Your task to perform on an android device: Open Chrome and go to settings Image 0: 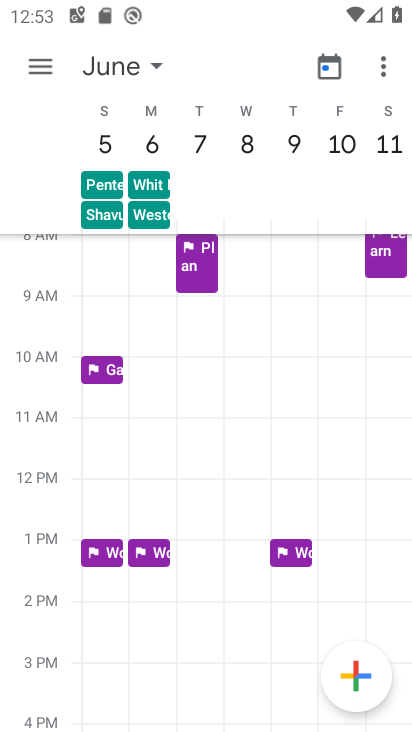
Step 0: press home button
Your task to perform on an android device: Open Chrome and go to settings Image 1: 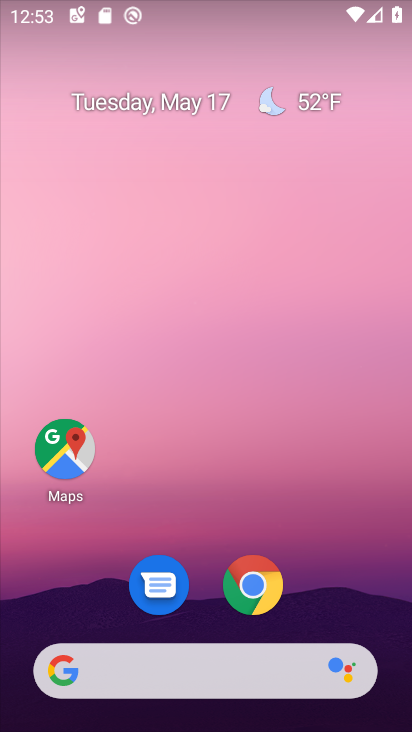
Step 1: click (266, 592)
Your task to perform on an android device: Open Chrome and go to settings Image 2: 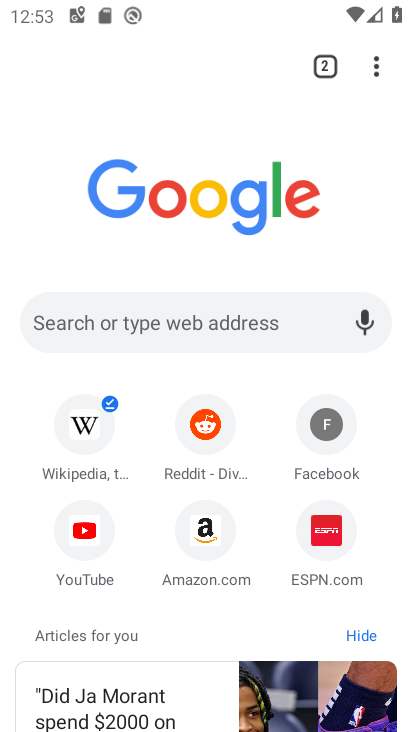
Step 2: click (376, 64)
Your task to perform on an android device: Open Chrome and go to settings Image 3: 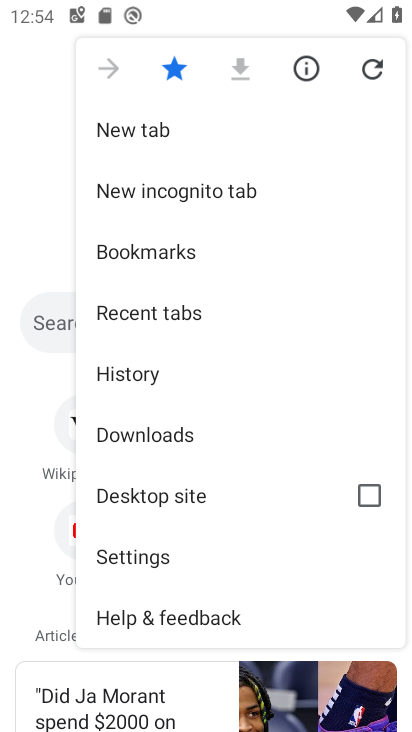
Step 3: click (165, 553)
Your task to perform on an android device: Open Chrome and go to settings Image 4: 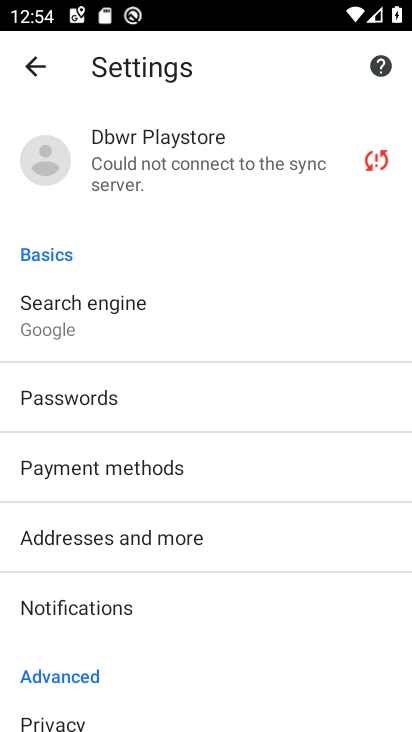
Step 4: task complete